Your task to perform on an android device: star an email in the gmail app Image 0: 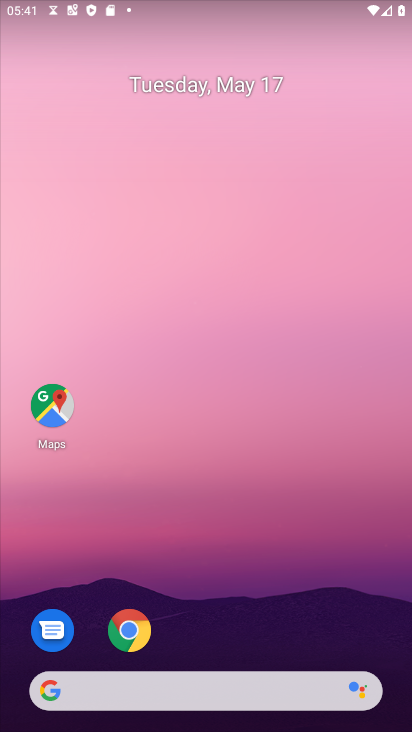
Step 0: drag from (308, 593) to (299, 79)
Your task to perform on an android device: star an email in the gmail app Image 1: 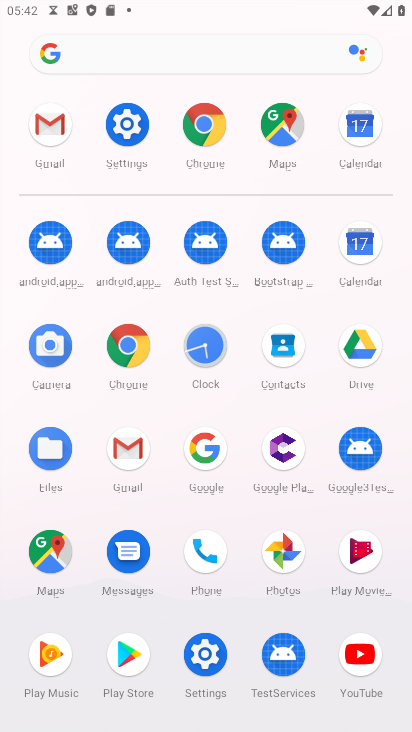
Step 1: click (40, 121)
Your task to perform on an android device: star an email in the gmail app Image 2: 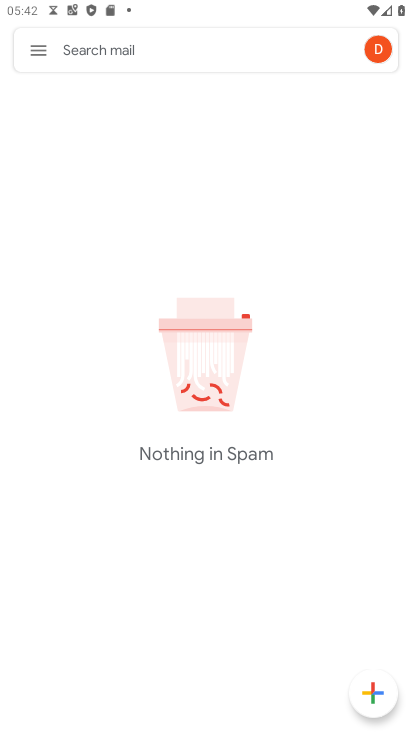
Step 2: click (50, 55)
Your task to perform on an android device: star an email in the gmail app Image 3: 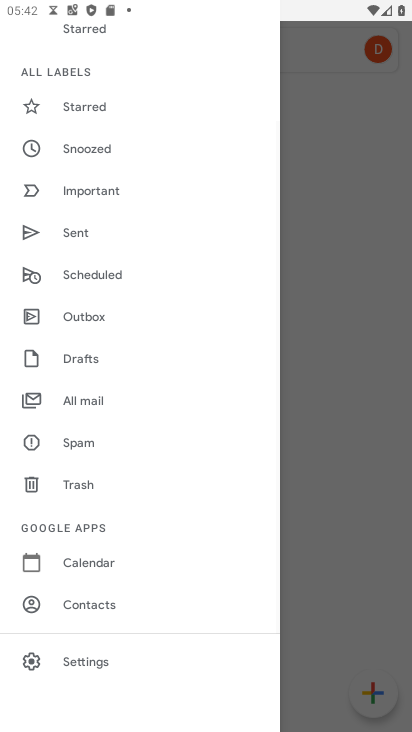
Step 3: drag from (150, 184) to (169, 649)
Your task to perform on an android device: star an email in the gmail app Image 4: 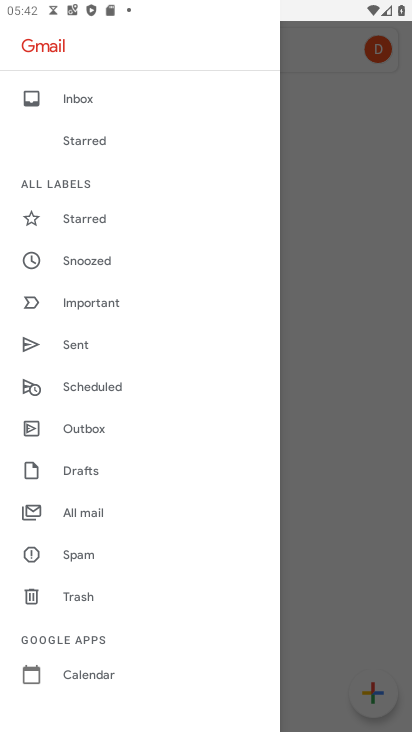
Step 4: click (71, 99)
Your task to perform on an android device: star an email in the gmail app Image 5: 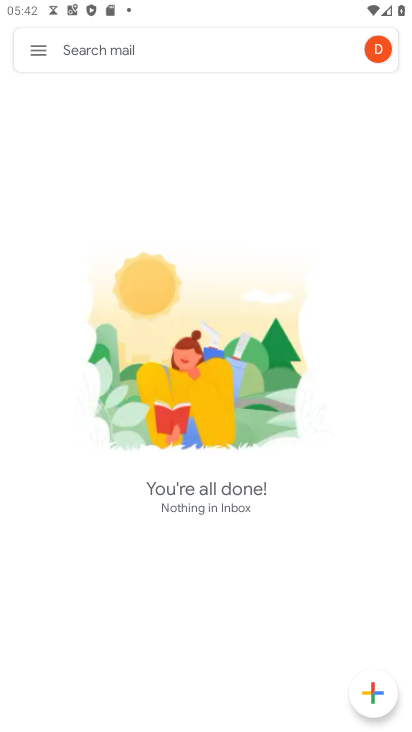
Step 5: task complete